Your task to perform on an android device: open chrome and create a bookmark for the current page Image 0: 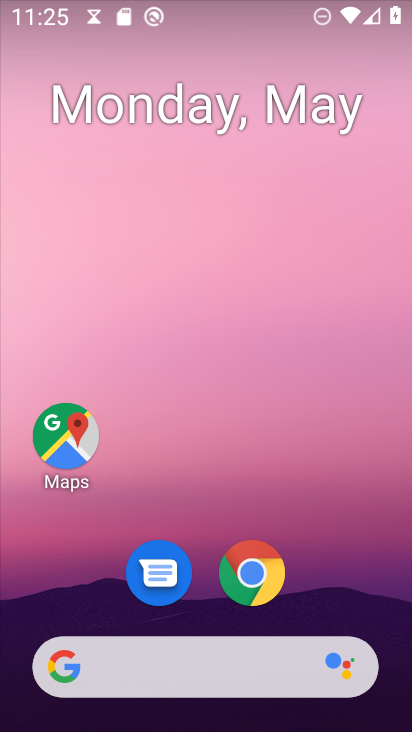
Step 0: click (264, 568)
Your task to perform on an android device: open chrome and create a bookmark for the current page Image 1: 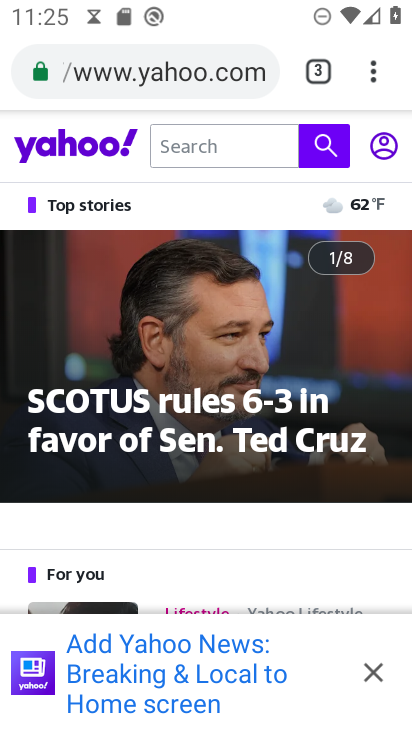
Step 1: click (371, 69)
Your task to perform on an android device: open chrome and create a bookmark for the current page Image 2: 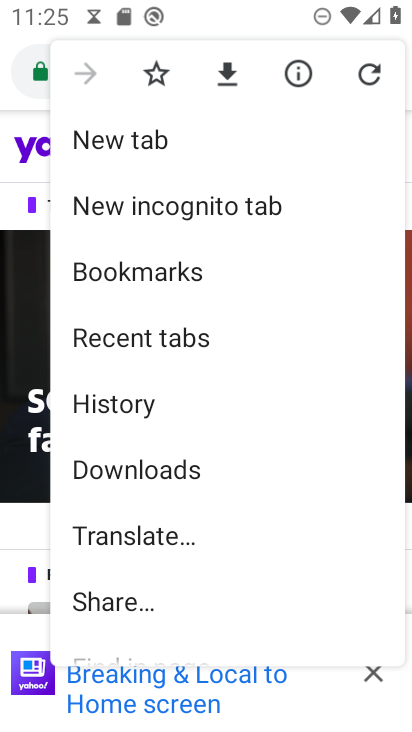
Step 2: click (13, 111)
Your task to perform on an android device: open chrome and create a bookmark for the current page Image 3: 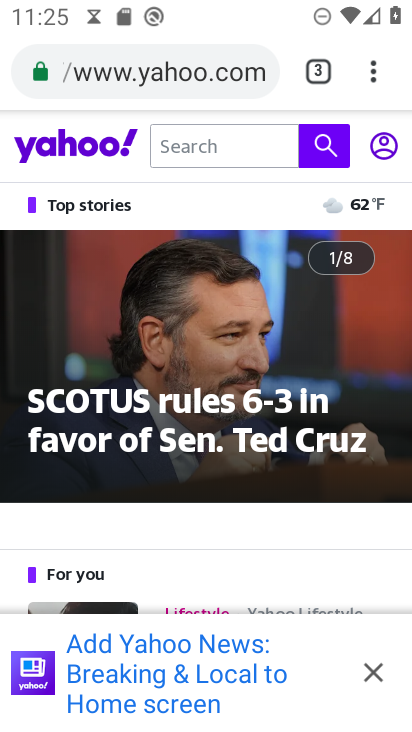
Step 3: click (373, 72)
Your task to perform on an android device: open chrome and create a bookmark for the current page Image 4: 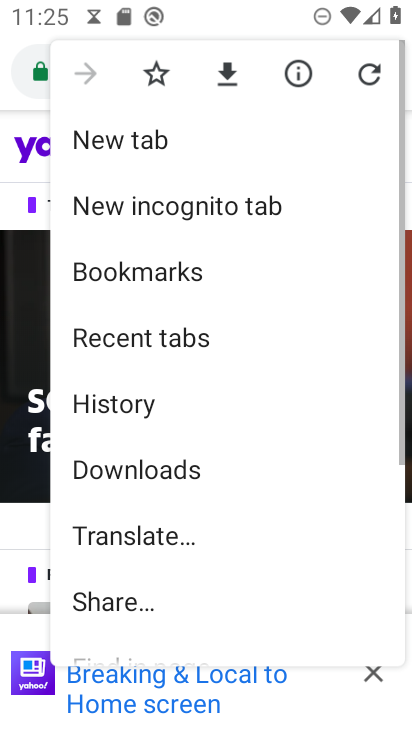
Step 4: click (157, 79)
Your task to perform on an android device: open chrome and create a bookmark for the current page Image 5: 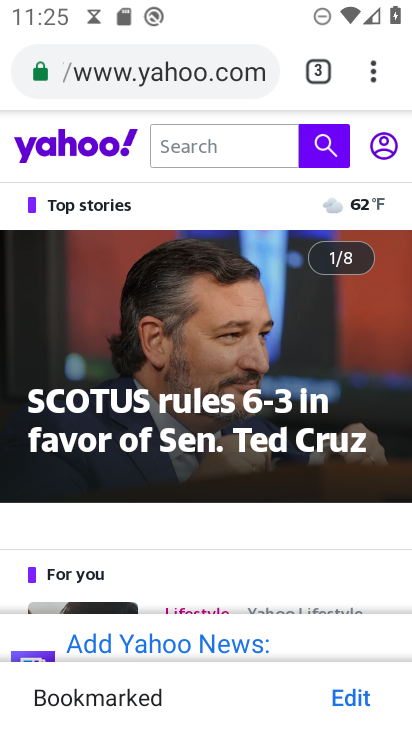
Step 5: task complete